Your task to perform on an android device: open chrome privacy settings Image 0: 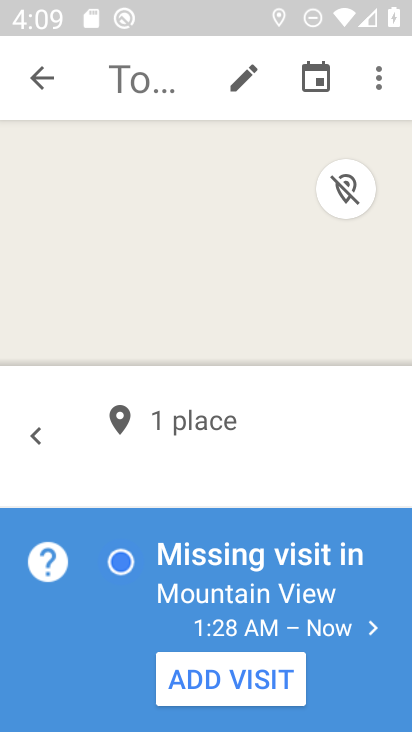
Step 0: press home button
Your task to perform on an android device: open chrome privacy settings Image 1: 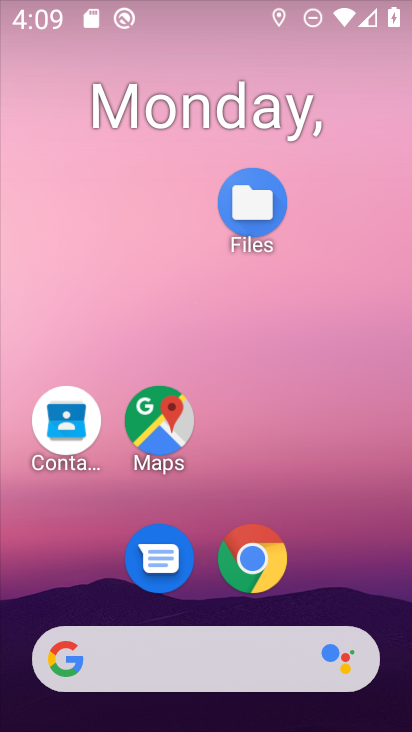
Step 1: drag from (208, 660) to (251, 262)
Your task to perform on an android device: open chrome privacy settings Image 2: 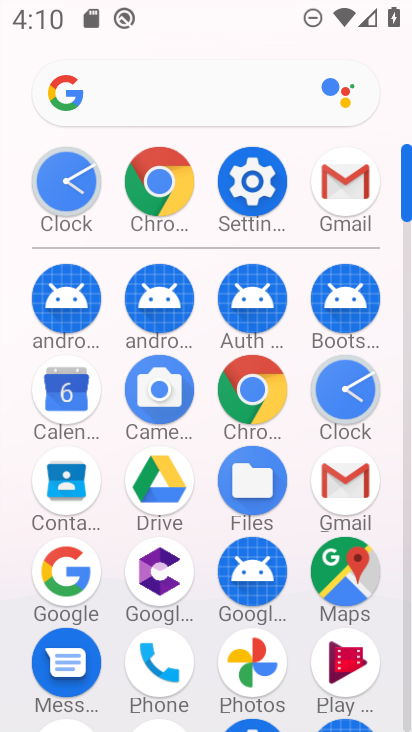
Step 2: click (174, 195)
Your task to perform on an android device: open chrome privacy settings Image 3: 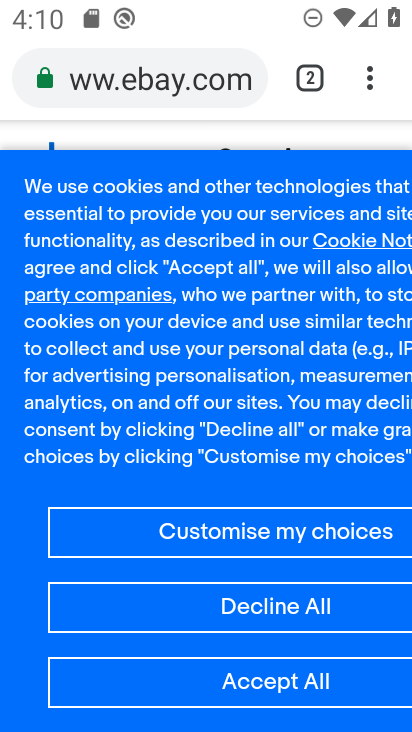
Step 3: click (372, 76)
Your task to perform on an android device: open chrome privacy settings Image 4: 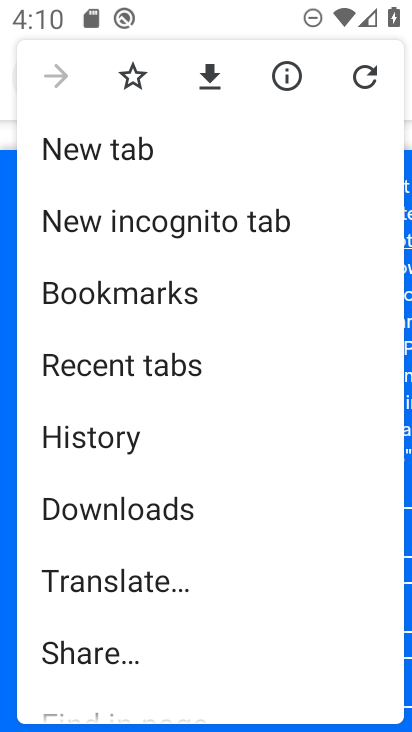
Step 4: drag from (219, 556) to (201, 154)
Your task to perform on an android device: open chrome privacy settings Image 5: 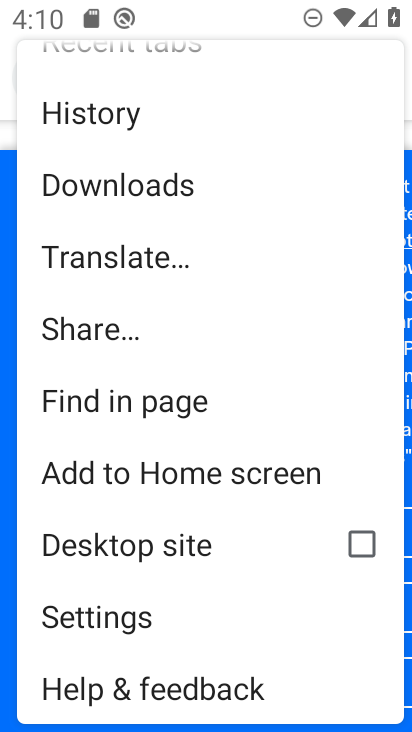
Step 5: click (133, 626)
Your task to perform on an android device: open chrome privacy settings Image 6: 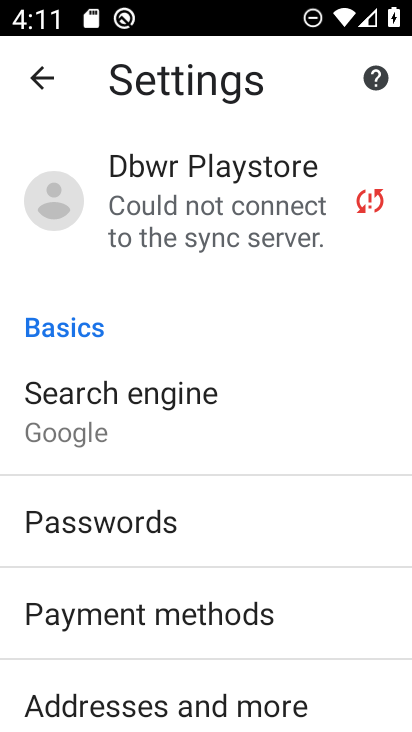
Step 6: drag from (196, 612) to (235, 230)
Your task to perform on an android device: open chrome privacy settings Image 7: 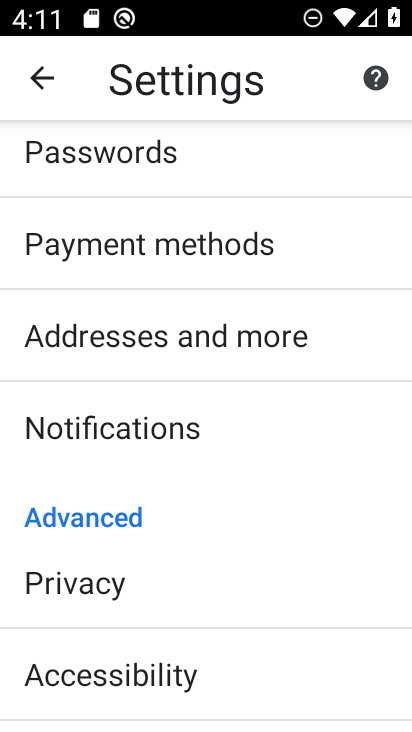
Step 7: click (60, 582)
Your task to perform on an android device: open chrome privacy settings Image 8: 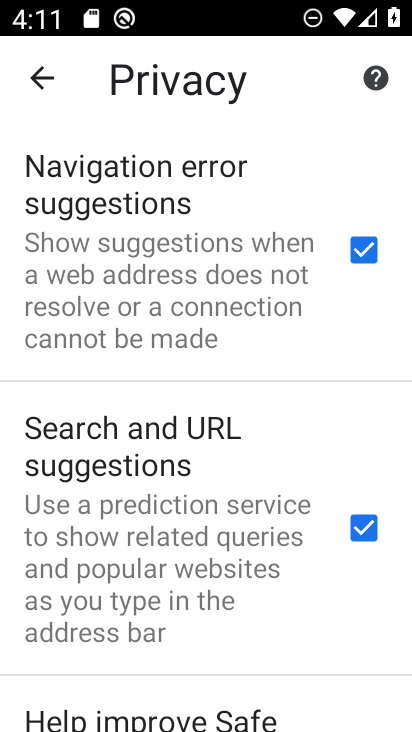
Step 8: task complete